Your task to perform on an android device: Go to notification settings Image 0: 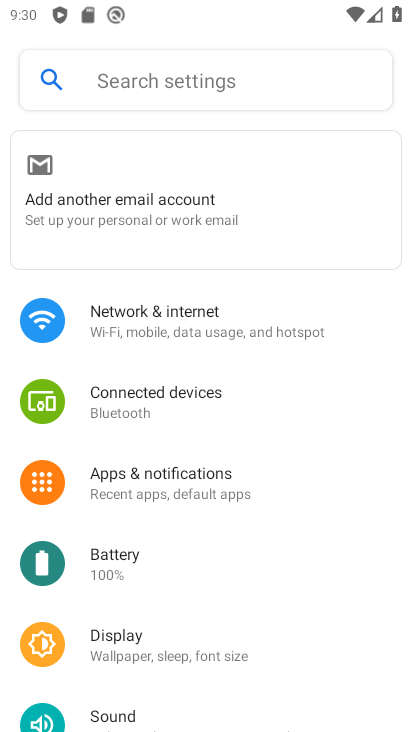
Step 0: click (191, 486)
Your task to perform on an android device: Go to notification settings Image 1: 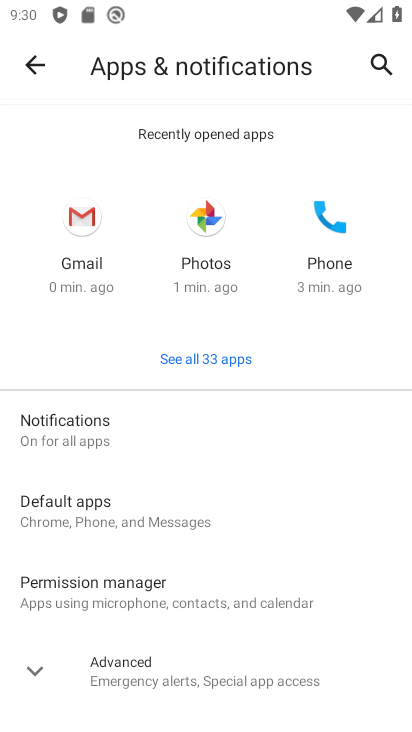
Step 1: click (163, 430)
Your task to perform on an android device: Go to notification settings Image 2: 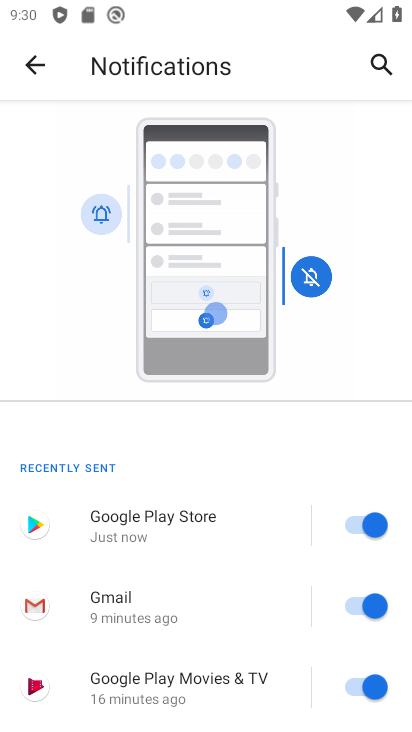
Step 2: task complete